Your task to perform on an android device: What's the weather today? Image 0: 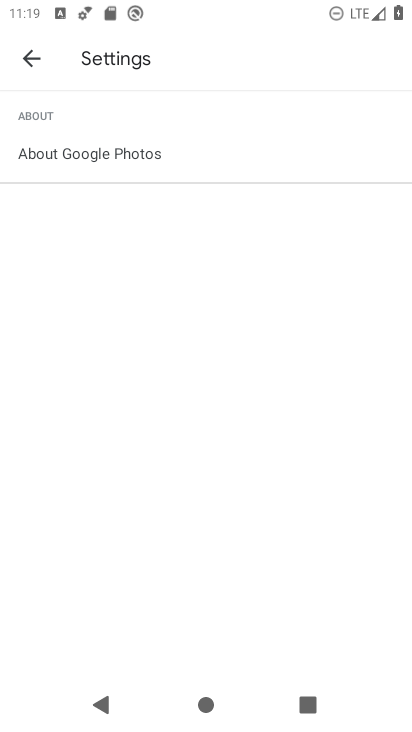
Step 0: press home button
Your task to perform on an android device: What's the weather today? Image 1: 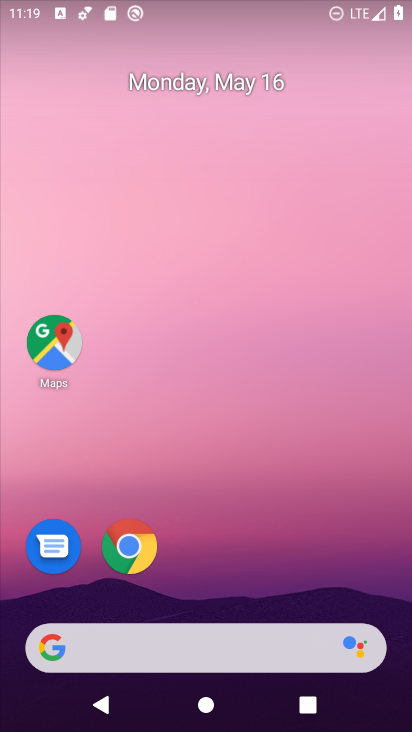
Step 1: click (102, 646)
Your task to perform on an android device: What's the weather today? Image 2: 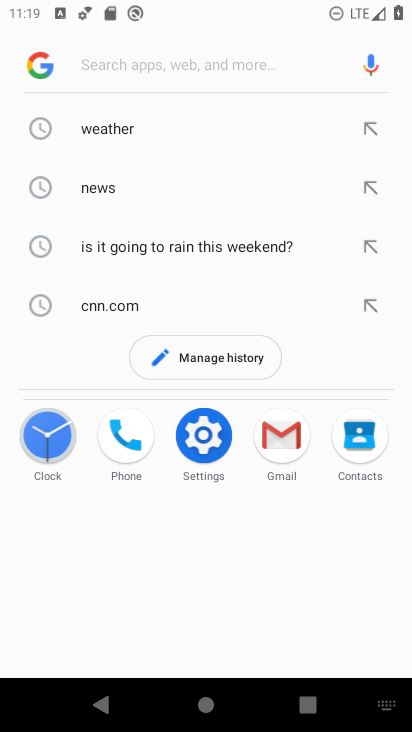
Step 2: click (179, 133)
Your task to perform on an android device: What's the weather today? Image 3: 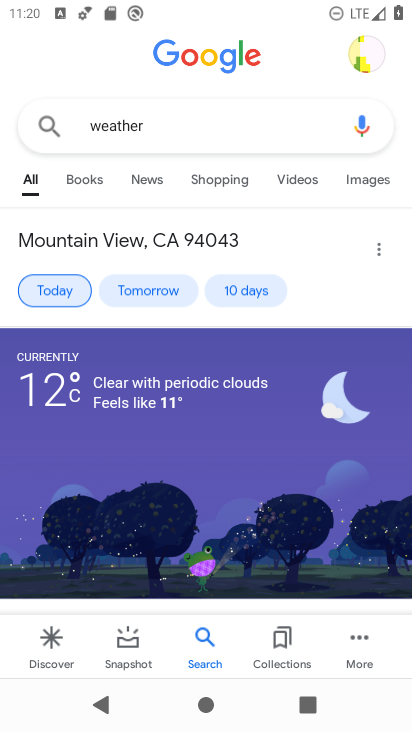
Step 3: task complete